Your task to perform on an android device: turn off picture-in-picture Image 0: 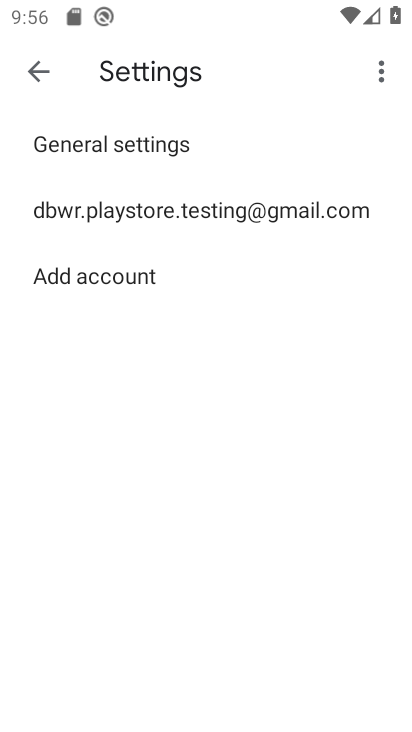
Step 0: press home button
Your task to perform on an android device: turn off picture-in-picture Image 1: 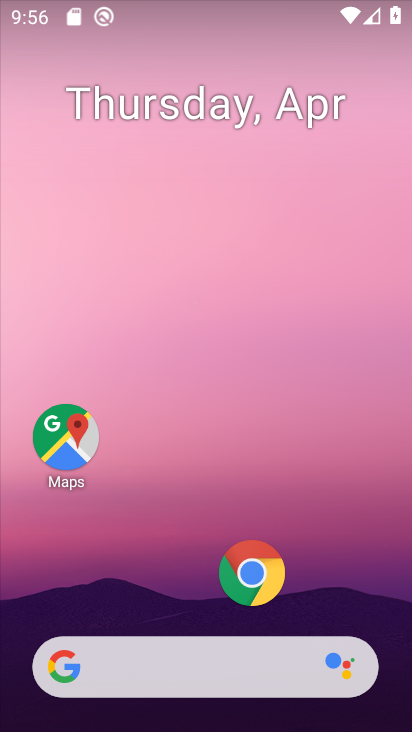
Step 1: click (252, 572)
Your task to perform on an android device: turn off picture-in-picture Image 2: 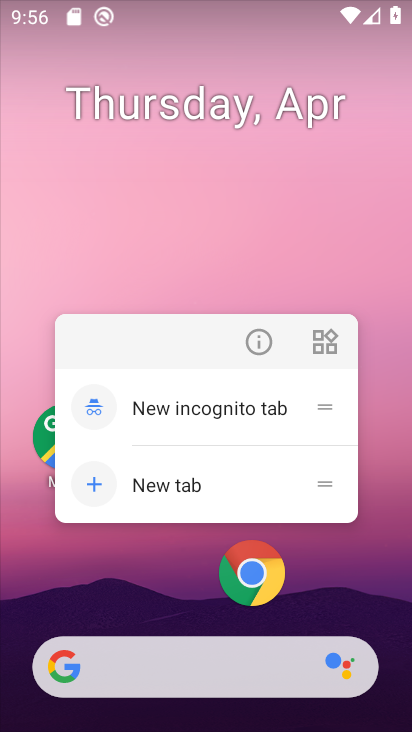
Step 2: click (257, 345)
Your task to perform on an android device: turn off picture-in-picture Image 3: 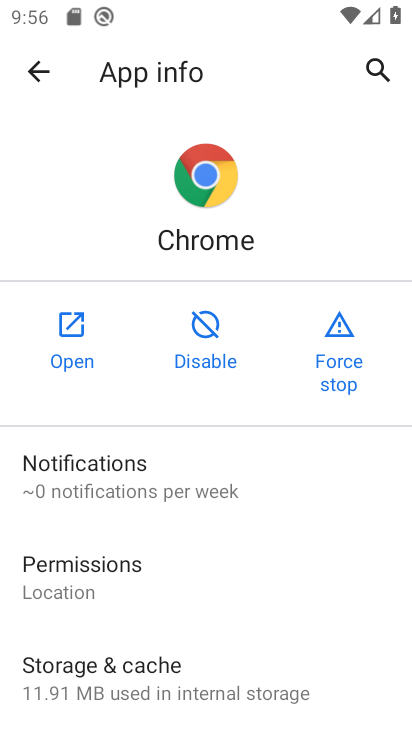
Step 3: drag from (193, 649) to (223, 345)
Your task to perform on an android device: turn off picture-in-picture Image 4: 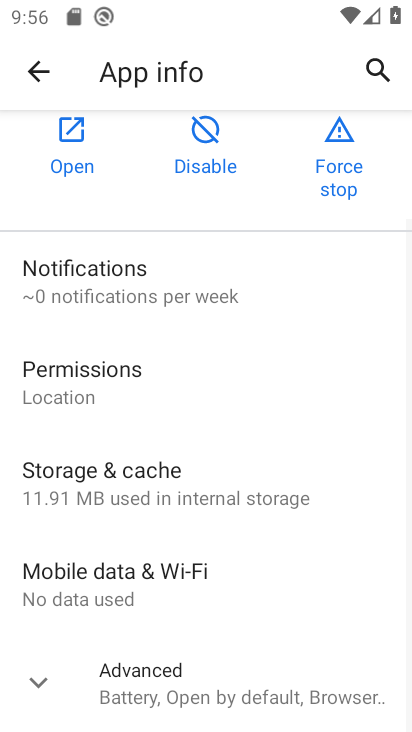
Step 4: drag from (217, 543) to (225, 402)
Your task to perform on an android device: turn off picture-in-picture Image 5: 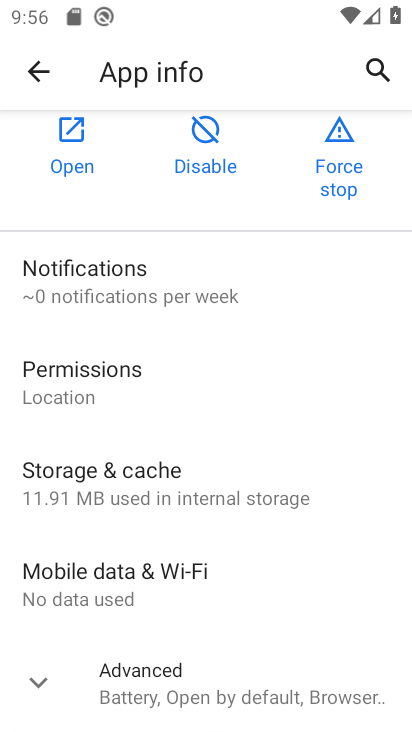
Step 5: click (176, 680)
Your task to perform on an android device: turn off picture-in-picture Image 6: 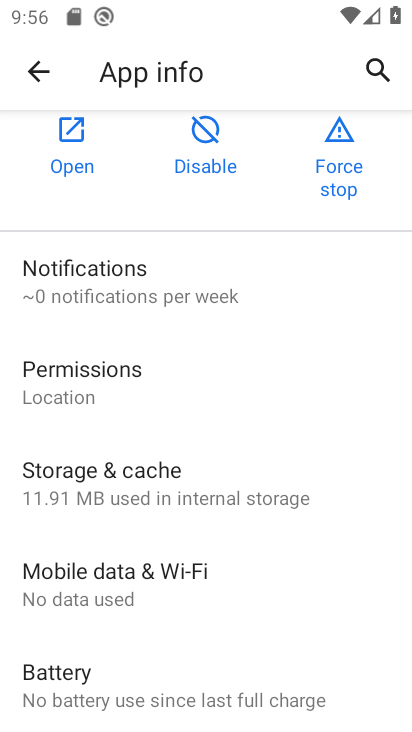
Step 6: drag from (184, 670) to (204, 301)
Your task to perform on an android device: turn off picture-in-picture Image 7: 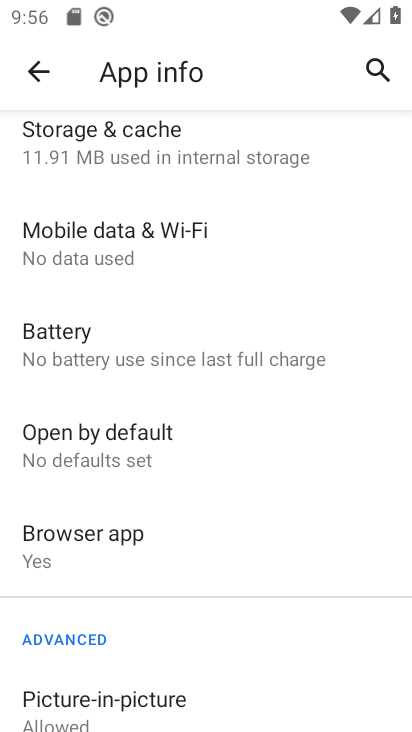
Step 7: click (158, 691)
Your task to perform on an android device: turn off picture-in-picture Image 8: 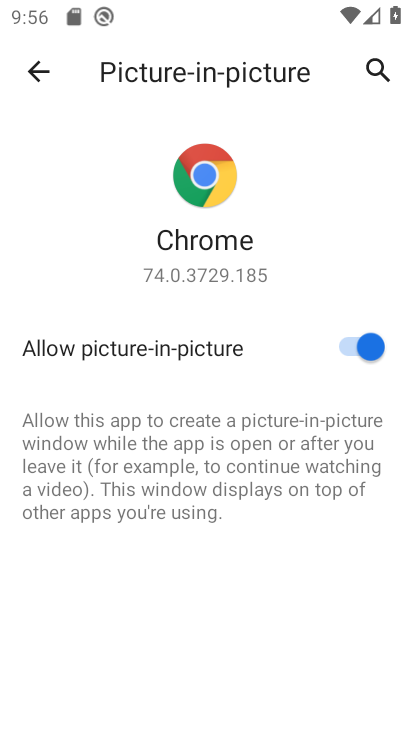
Step 8: click (339, 342)
Your task to perform on an android device: turn off picture-in-picture Image 9: 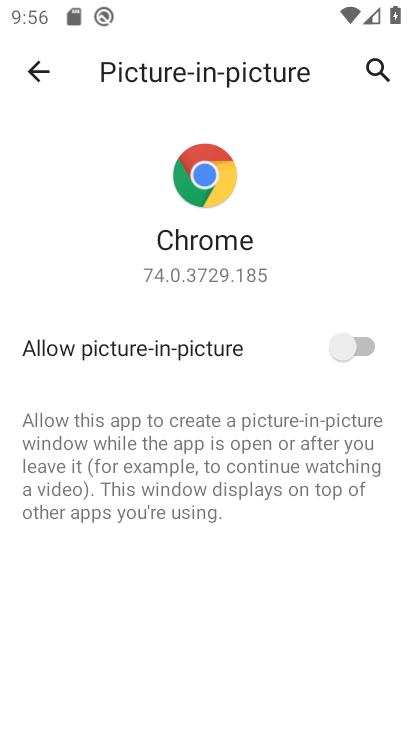
Step 9: task complete